Your task to perform on an android device: change the clock display to show seconds Image 0: 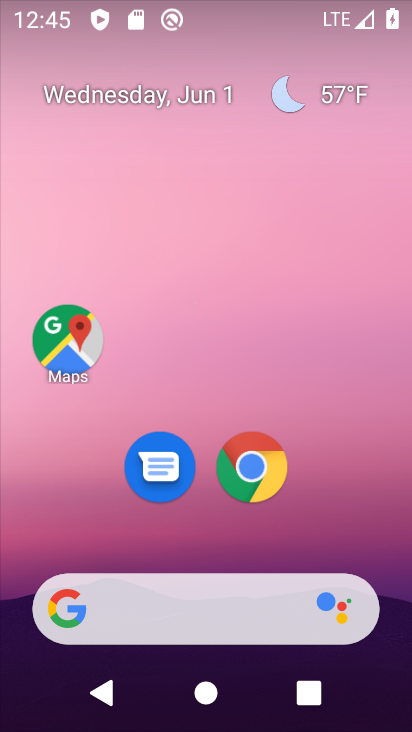
Step 0: drag from (313, 525) to (344, 114)
Your task to perform on an android device: change the clock display to show seconds Image 1: 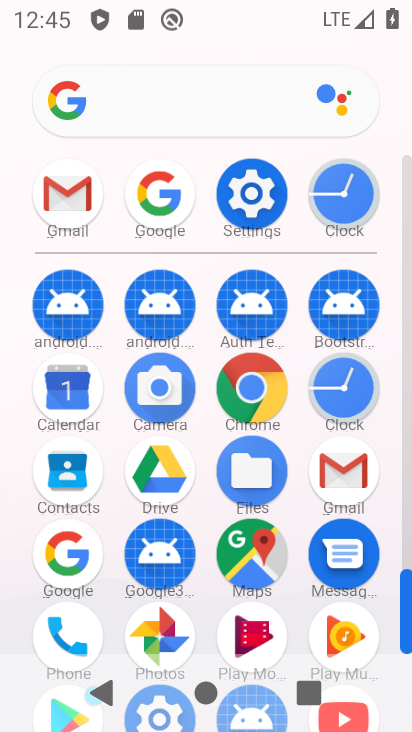
Step 1: click (359, 394)
Your task to perform on an android device: change the clock display to show seconds Image 2: 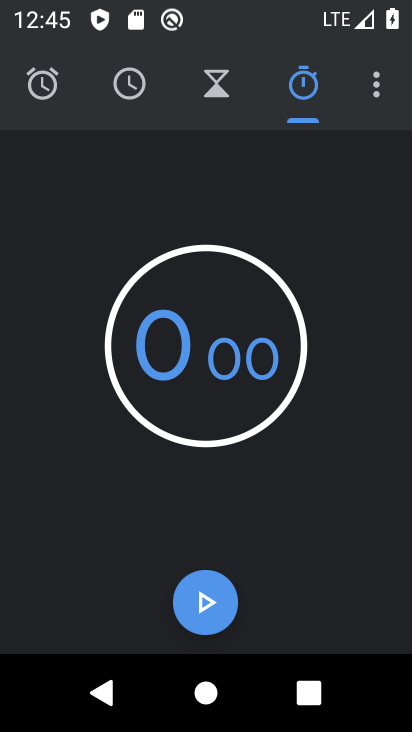
Step 2: click (376, 101)
Your task to perform on an android device: change the clock display to show seconds Image 3: 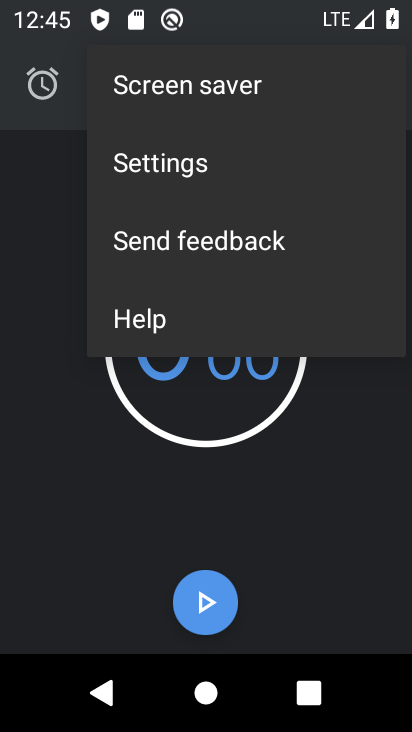
Step 3: click (294, 172)
Your task to perform on an android device: change the clock display to show seconds Image 4: 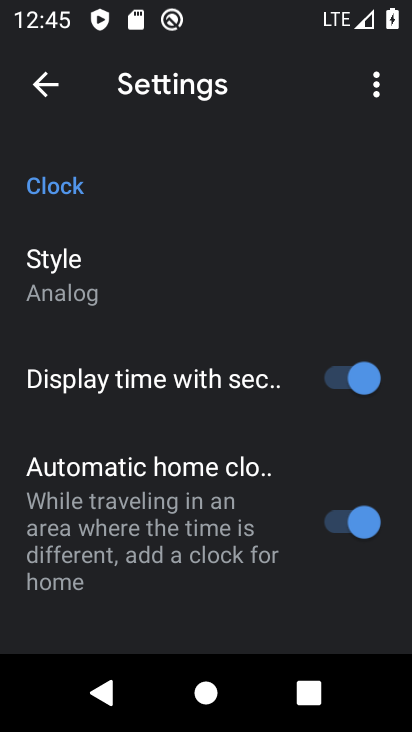
Step 4: task complete